Your task to perform on an android device: Open Youtube and go to "Your channel" Image 0: 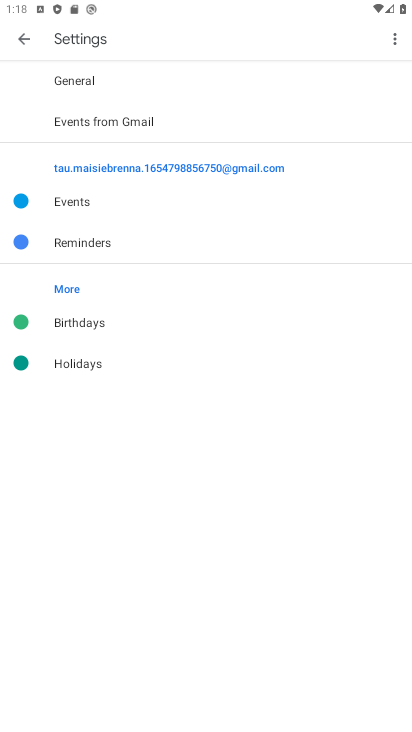
Step 0: press home button
Your task to perform on an android device: Open Youtube and go to "Your channel" Image 1: 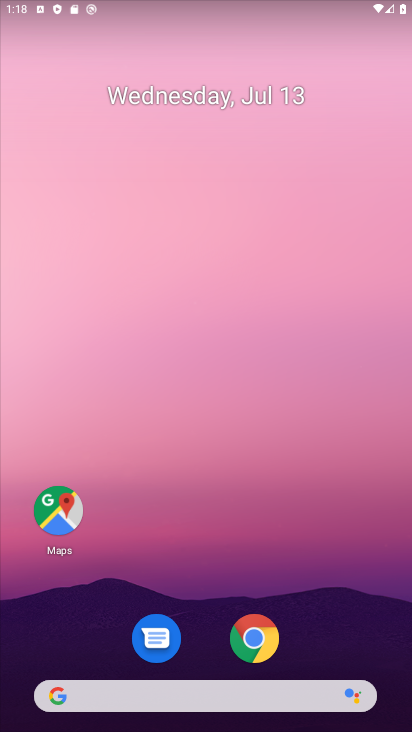
Step 1: drag from (267, 719) to (281, 283)
Your task to perform on an android device: Open Youtube and go to "Your channel" Image 2: 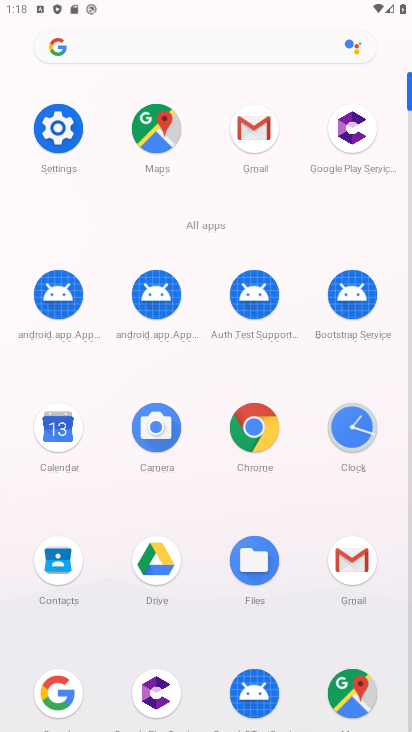
Step 2: drag from (334, 624) to (295, 146)
Your task to perform on an android device: Open Youtube and go to "Your channel" Image 3: 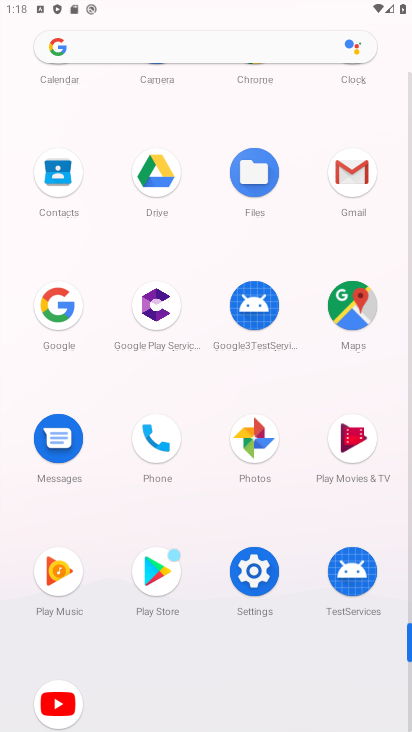
Step 3: click (56, 687)
Your task to perform on an android device: Open Youtube and go to "Your channel" Image 4: 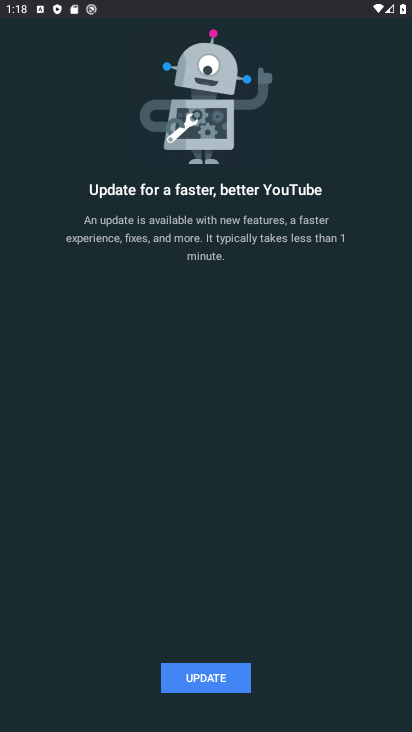
Step 4: click (223, 680)
Your task to perform on an android device: Open Youtube and go to "Your channel" Image 5: 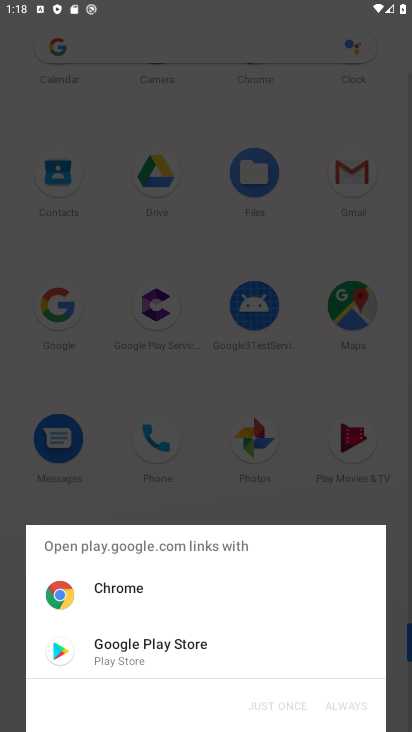
Step 5: click (184, 653)
Your task to perform on an android device: Open Youtube and go to "Your channel" Image 6: 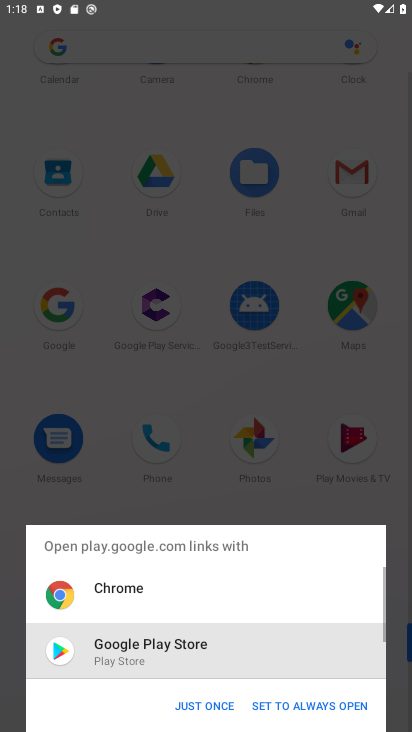
Step 6: click (230, 709)
Your task to perform on an android device: Open Youtube and go to "Your channel" Image 7: 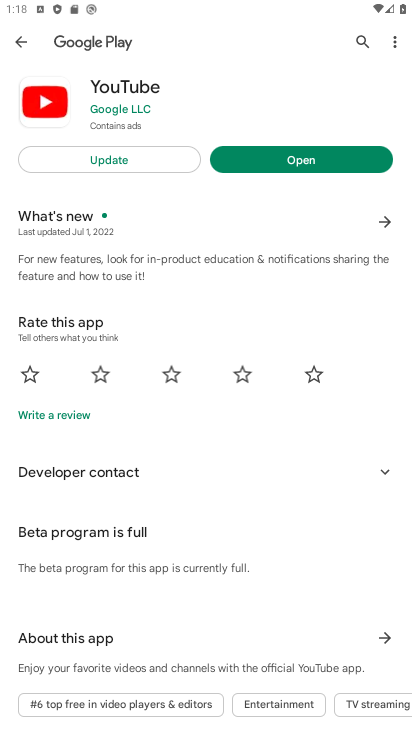
Step 7: click (128, 161)
Your task to perform on an android device: Open Youtube and go to "Your channel" Image 8: 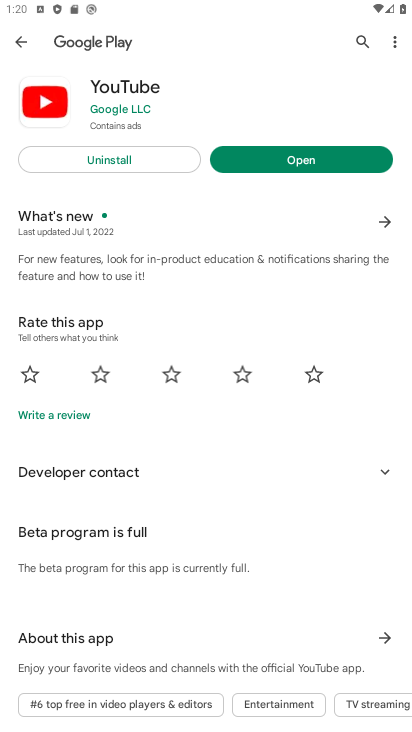
Step 8: click (307, 161)
Your task to perform on an android device: Open Youtube and go to "Your channel" Image 9: 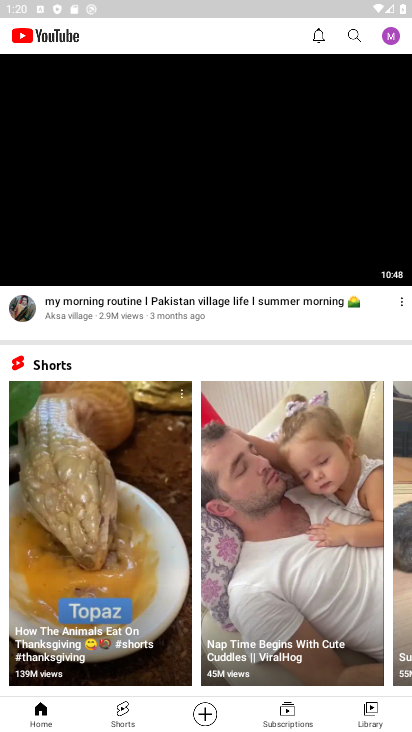
Step 9: click (404, 34)
Your task to perform on an android device: Open Youtube and go to "Your channel" Image 10: 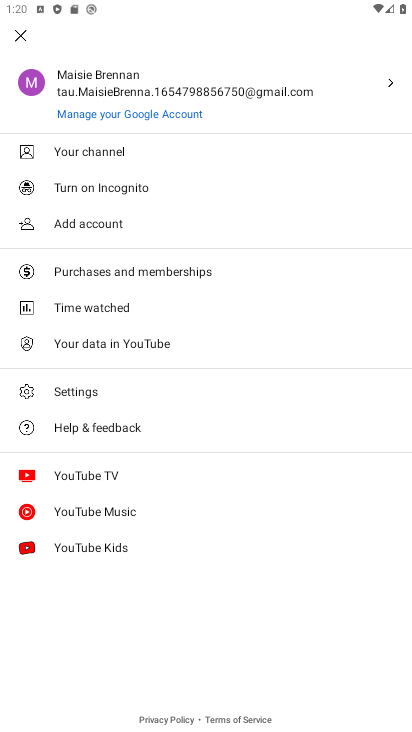
Step 10: click (89, 158)
Your task to perform on an android device: Open Youtube and go to "Your channel" Image 11: 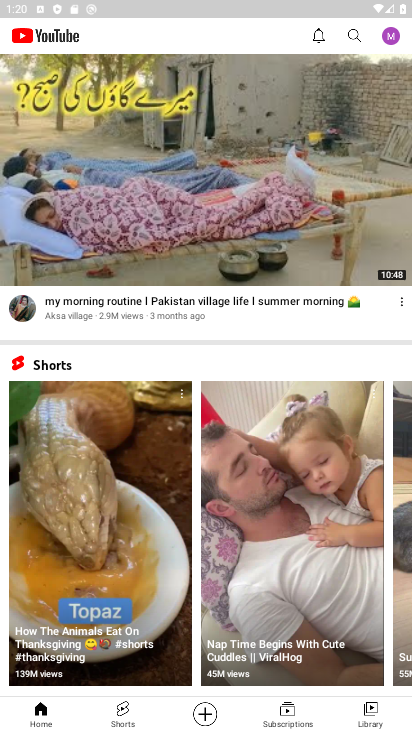
Step 11: click (394, 33)
Your task to perform on an android device: Open Youtube and go to "Your channel" Image 12: 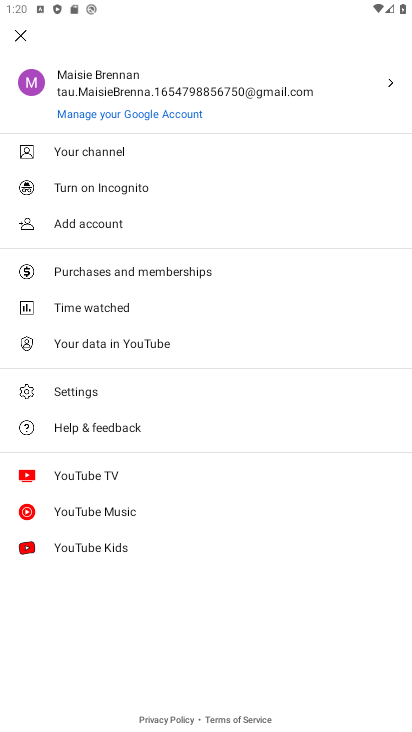
Step 12: click (142, 149)
Your task to perform on an android device: Open Youtube and go to "Your channel" Image 13: 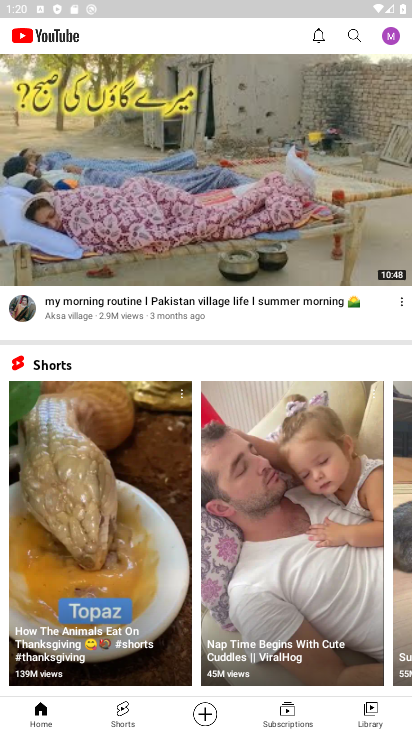
Step 13: task complete